Your task to perform on an android device: check out phone information Image 0: 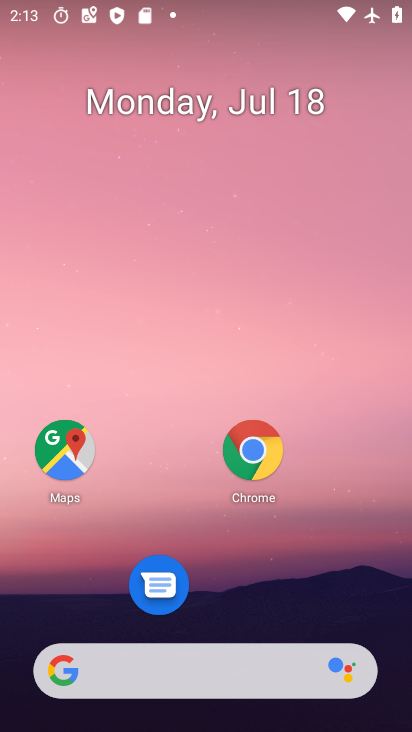
Step 0: press home button
Your task to perform on an android device: check out phone information Image 1: 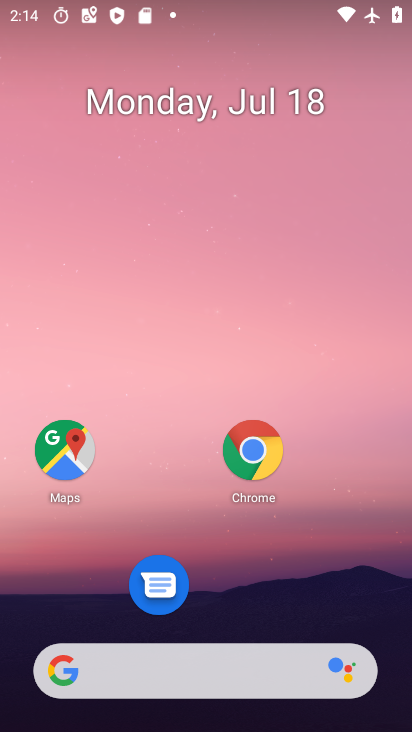
Step 1: drag from (165, 673) to (304, 18)
Your task to perform on an android device: check out phone information Image 2: 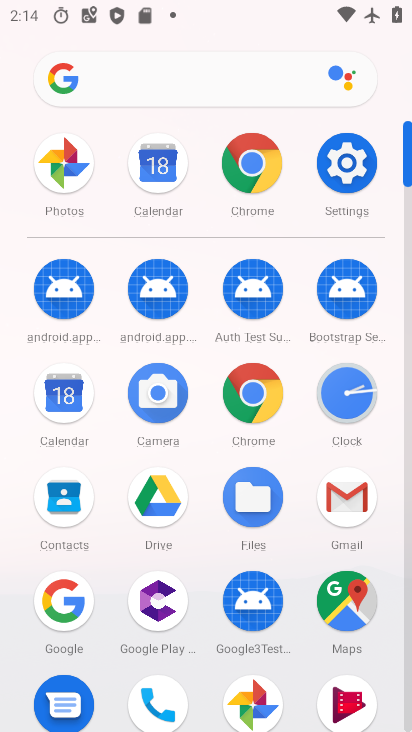
Step 2: click (350, 161)
Your task to perform on an android device: check out phone information Image 3: 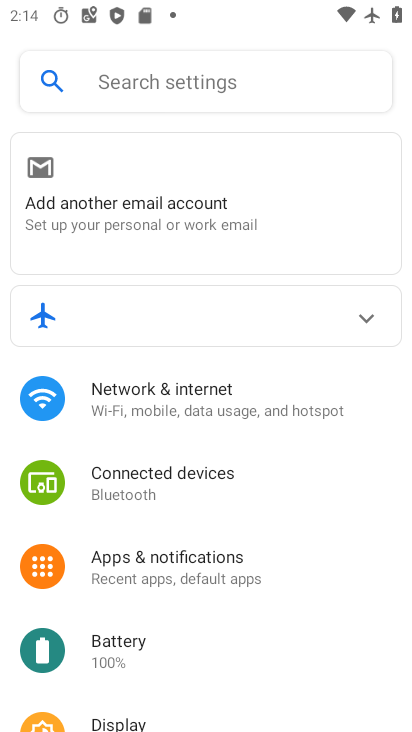
Step 3: drag from (213, 670) to (367, 110)
Your task to perform on an android device: check out phone information Image 4: 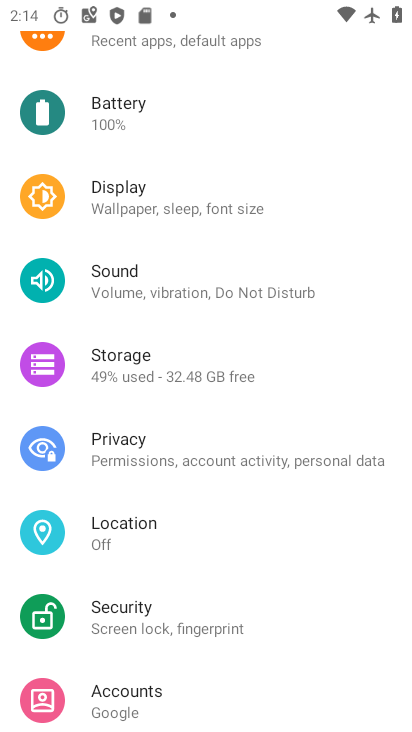
Step 4: drag from (249, 668) to (366, 133)
Your task to perform on an android device: check out phone information Image 5: 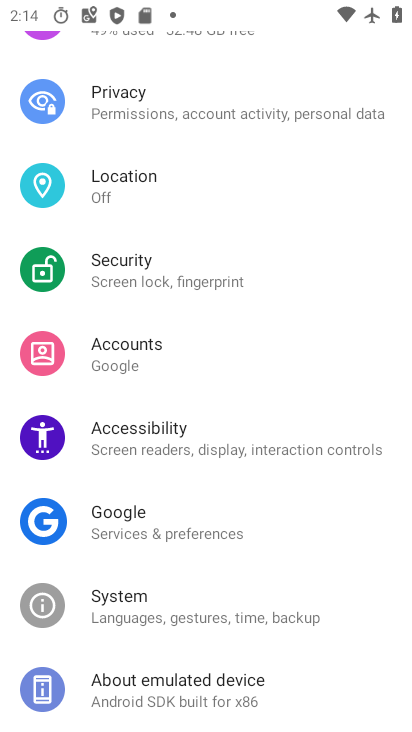
Step 5: click (220, 696)
Your task to perform on an android device: check out phone information Image 6: 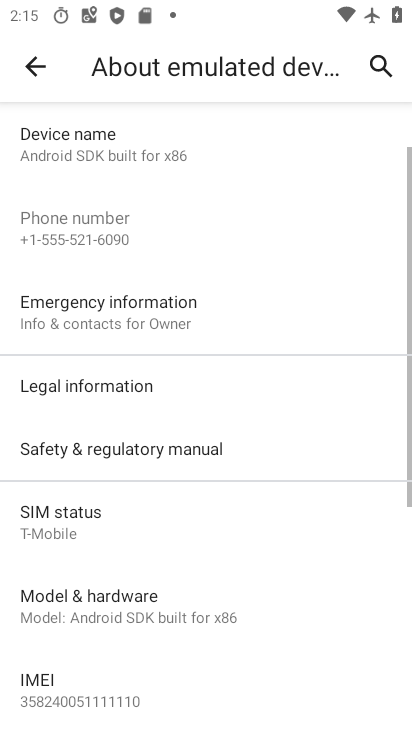
Step 6: task complete